Your task to perform on an android device: Open wifi settings Image 0: 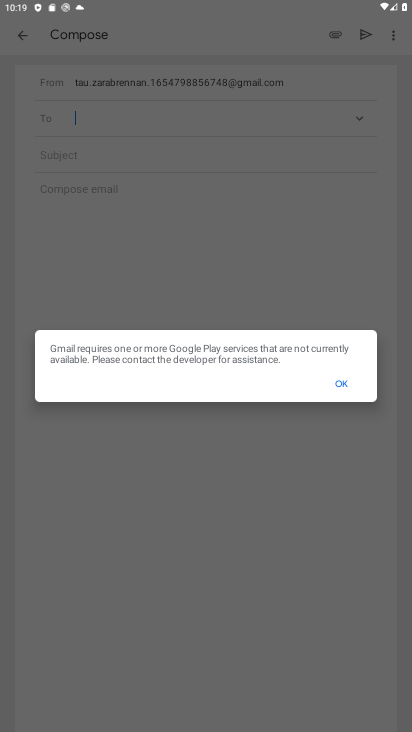
Step 0: press home button
Your task to perform on an android device: Open wifi settings Image 1: 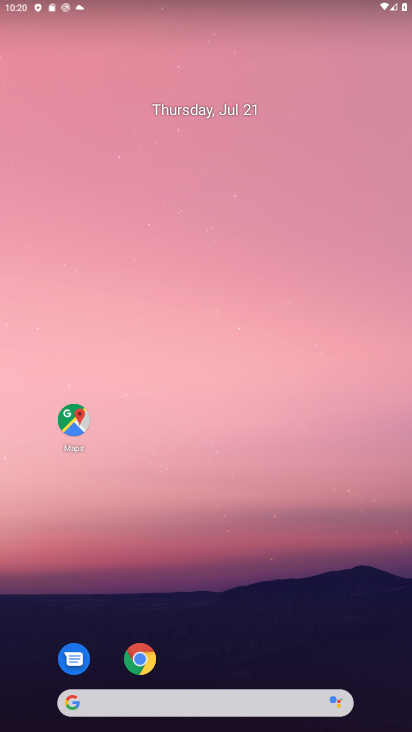
Step 1: drag from (253, 600) to (106, 27)
Your task to perform on an android device: Open wifi settings Image 2: 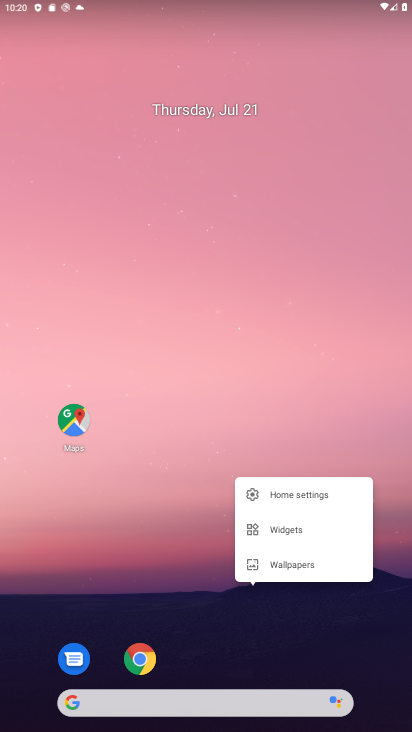
Step 2: click (245, 296)
Your task to perform on an android device: Open wifi settings Image 3: 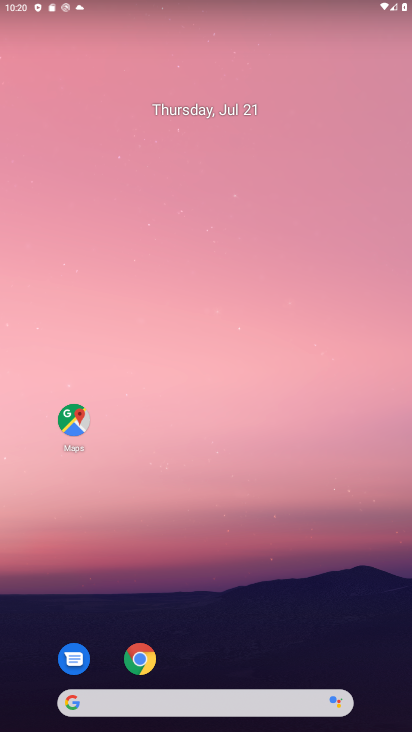
Step 3: drag from (240, 663) to (229, 11)
Your task to perform on an android device: Open wifi settings Image 4: 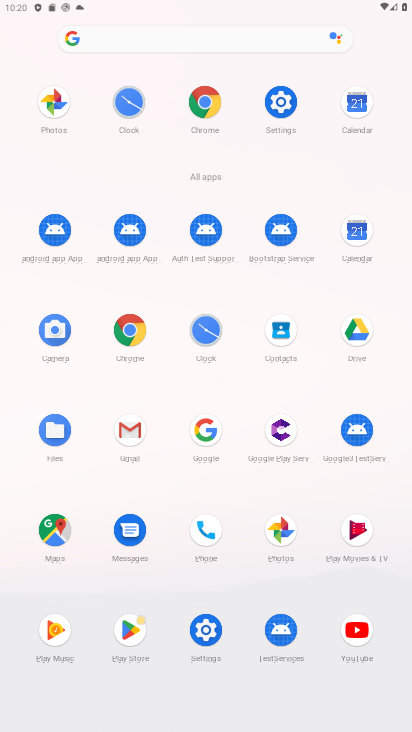
Step 4: click (291, 100)
Your task to perform on an android device: Open wifi settings Image 5: 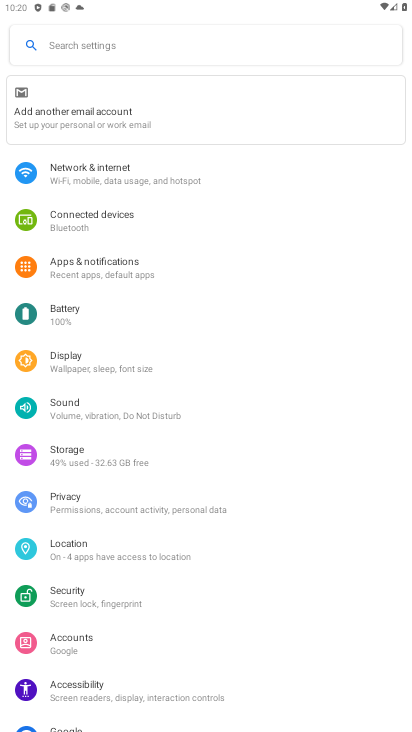
Step 5: click (201, 168)
Your task to perform on an android device: Open wifi settings Image 6: 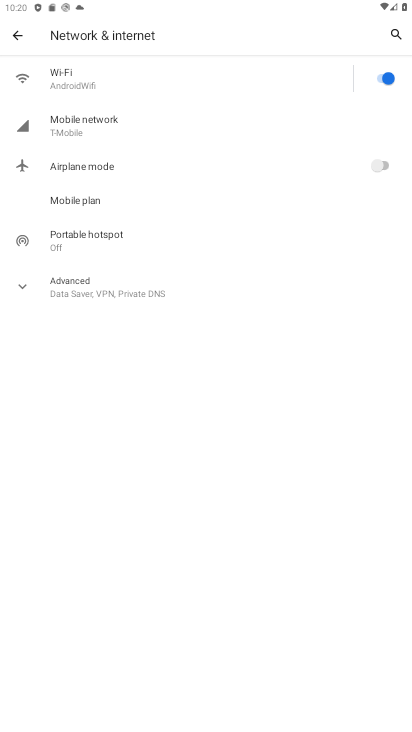
Step 6: task complete